Your task to perform on an android device: Search for seafood restaurants on Google Maps Image 0: 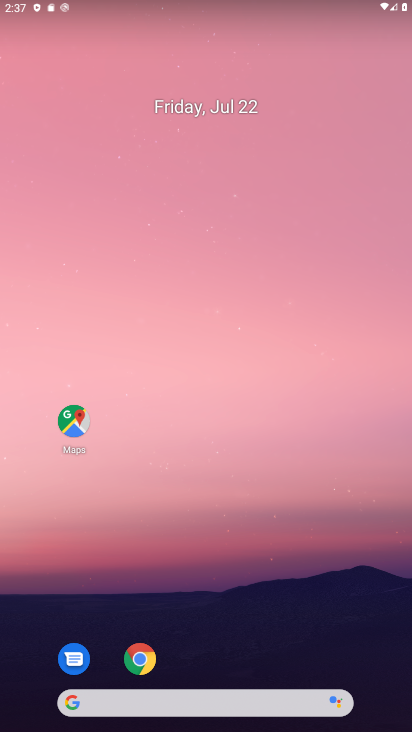
Step 0: task complete